Your task to perform on an android device: Open sound settings Image 0: 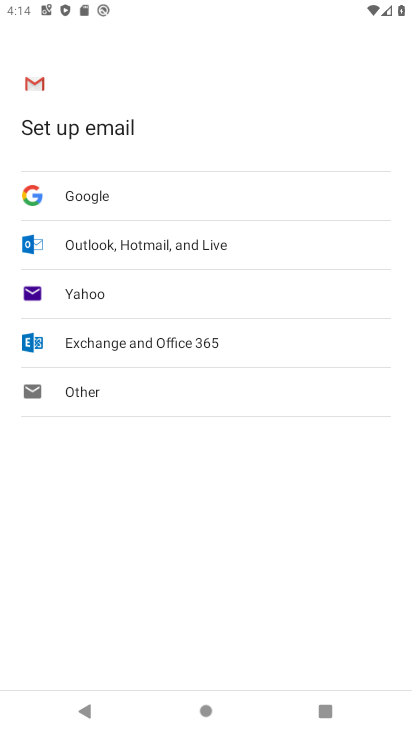
Step 0: press home button
Your task to perform on an android device: Open sound settings Image 1: 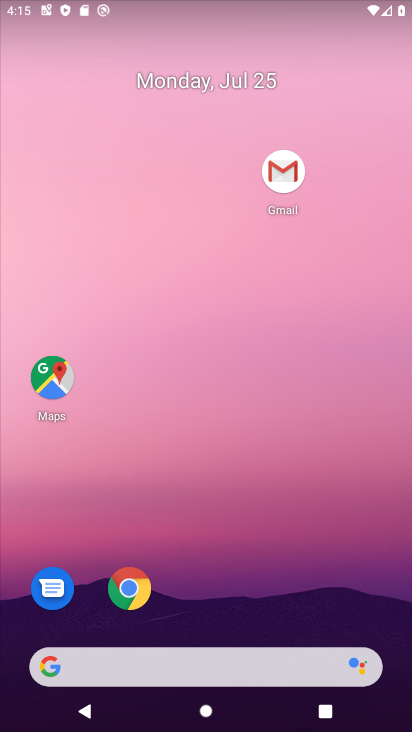
Step 1: drag from (373, 578) to (265, 46)
Your task to perform on an android device: Open sound settings Image 2: 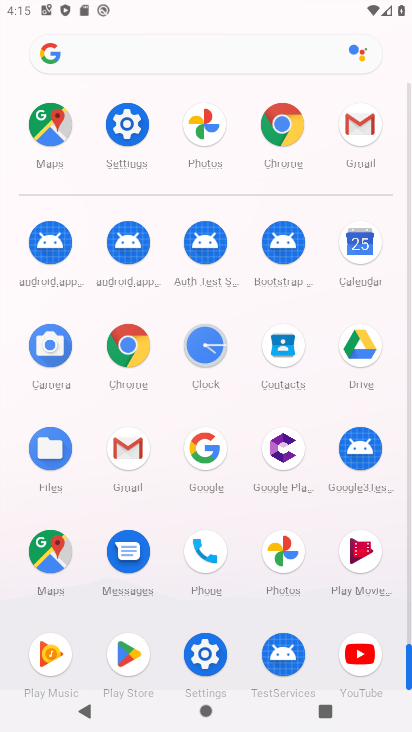
Step 2: click (127, 115)
Your task to perform on an android device: Open sound settings Image 3: 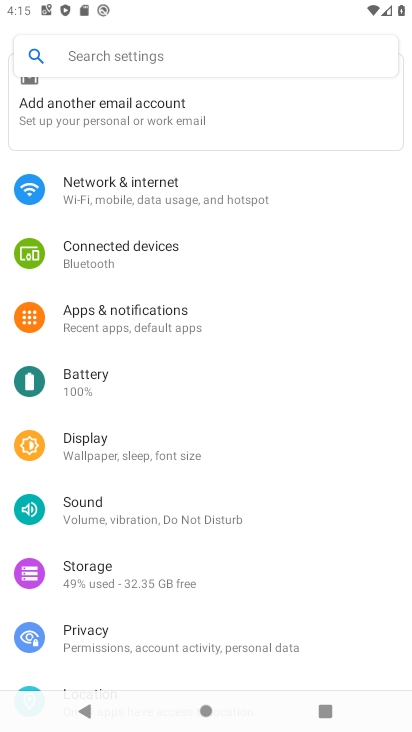
Step 3: click (114, 509)
Your task to perform on an android device: Open sound settings Image 4: 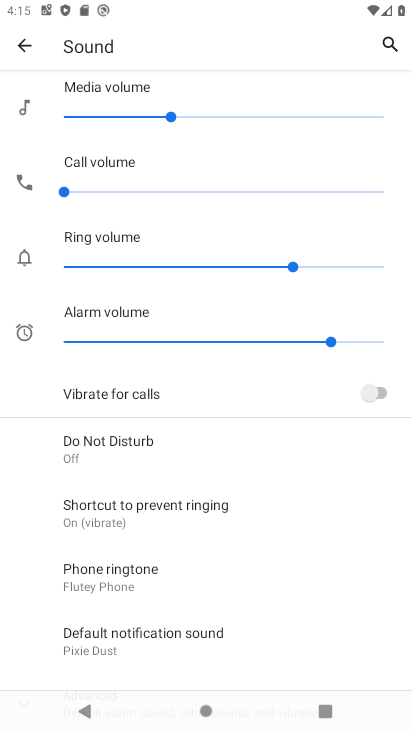
Step 4: task complete